Your task to perform on an android device: Open Wikipedia Image 0: 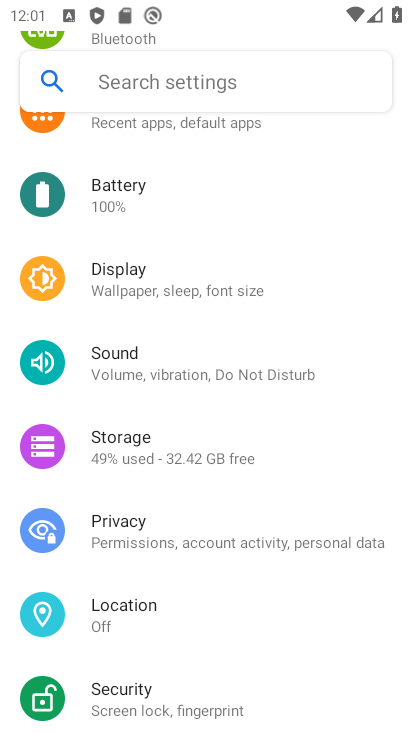
Step 0: press home button
Your task to perform on an android device: Open Wikipedia Image 1: 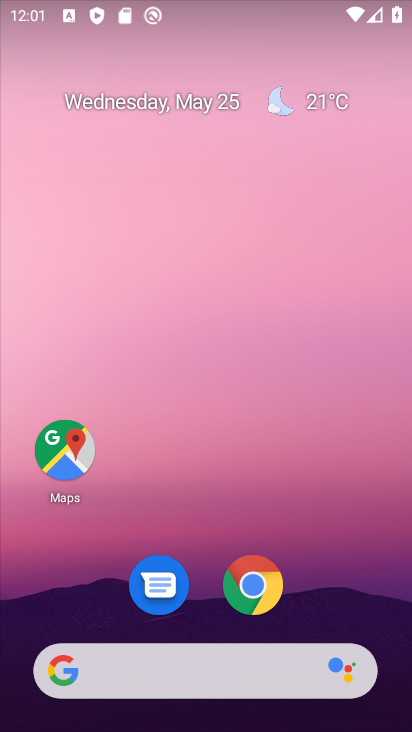
Step 1: click (265, 576)
Your task to perform on an android device: Open Wikipedia Image 2: 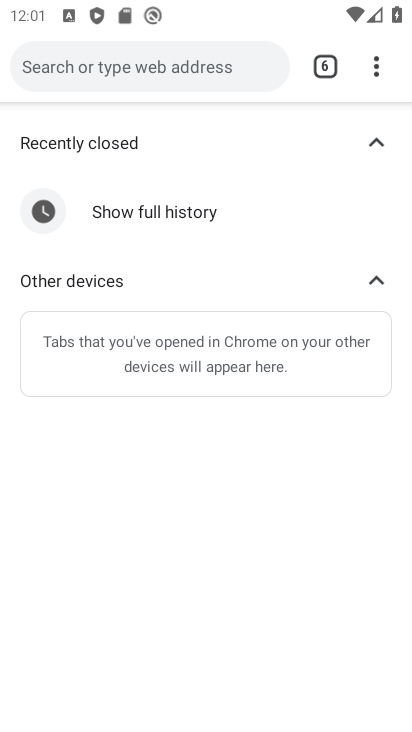
Step 2: click (322, 65)
Your task to perform on an android device: Open Wikipedia Image 3: 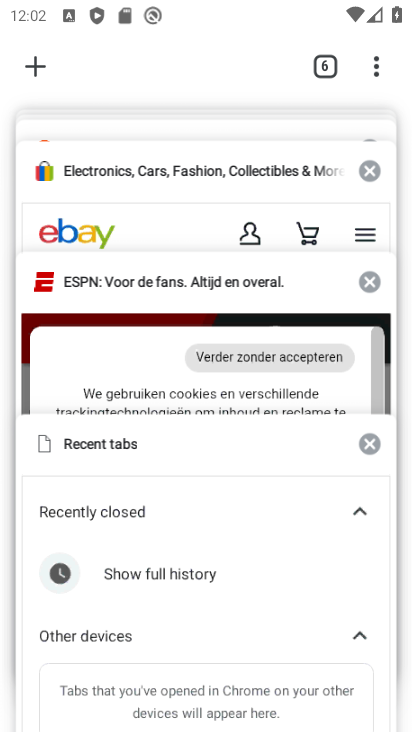
Step 3: click (371, 50)
Your task to perform on an android device: Open Wikipedia Image 4: 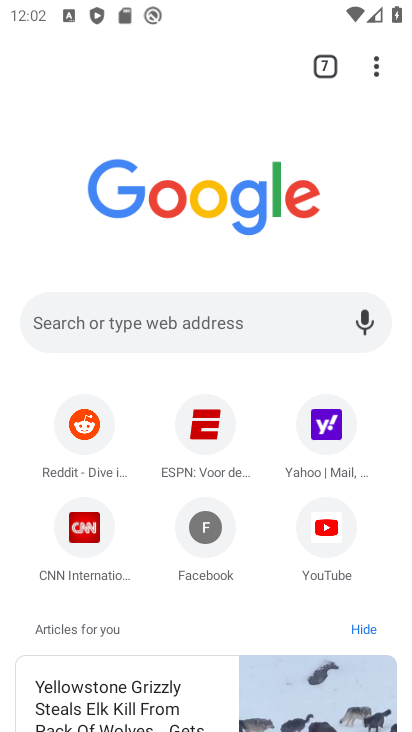
Step 4: click (227, 312)
Your task to perform on an android device: Open Wikipedia Image 5: 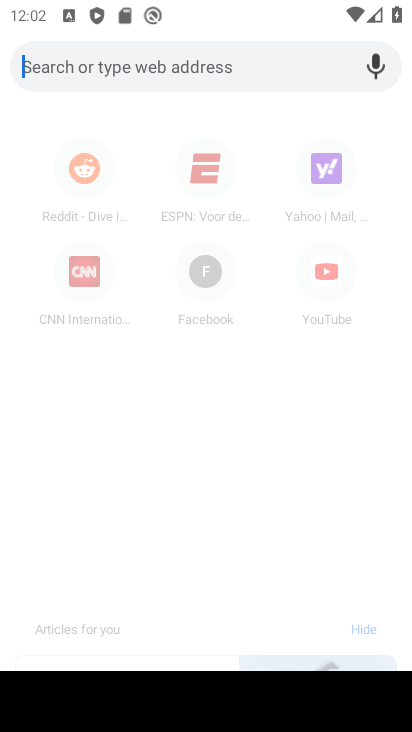
Step 5: type "Wikipedia"
Your task to perform on an android device: Open Wikipedia Image 6: 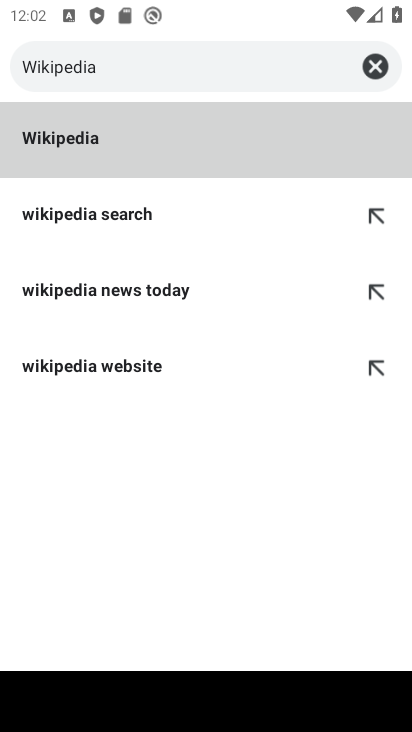
Step 6: click (143, 205)
Your task to perform on an android device: Open Wikipedia Image 7: 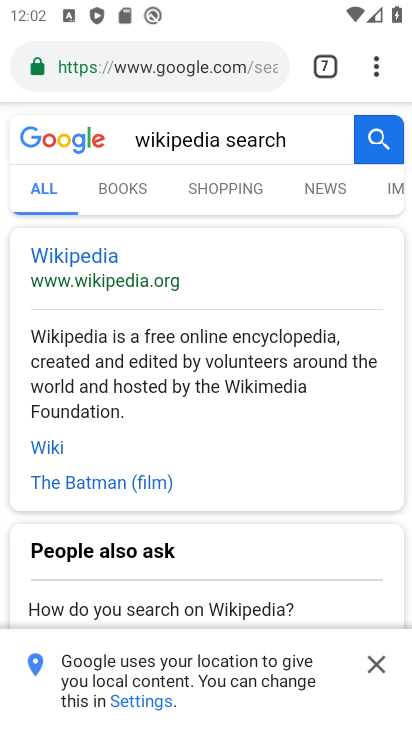
Step 7: click (92, 253)
Your task to perform on an android device: Open Wikipedia Image 8: 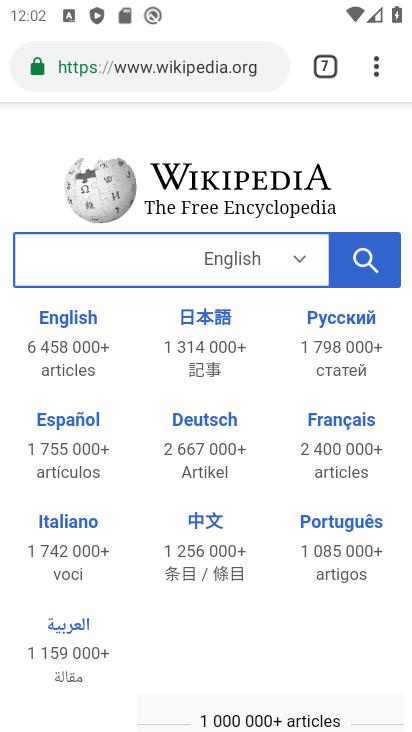
Step 8: click (67, 313)
Your task to perform on an android device: Open Wikipedia Image 9: 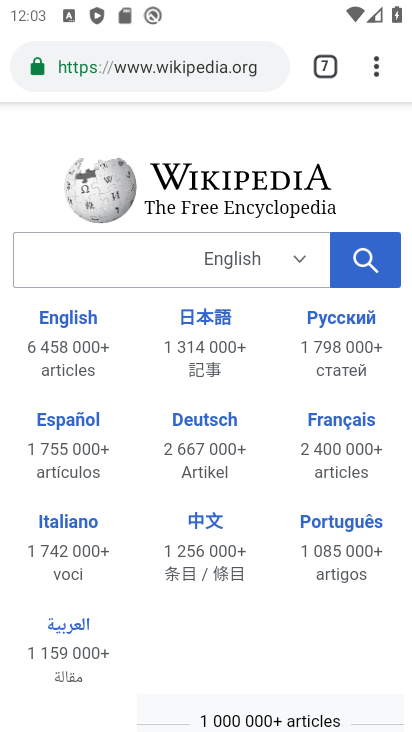
Step 9: task complete